Your task to perform on an android device: visit the assistant section in the google photos Image 0: 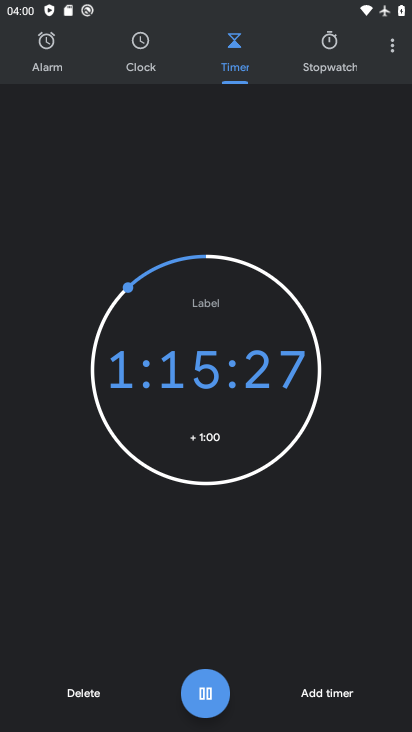
Step 0: press back button
Your task to perform on an android device: visit the assistant section in the google photos Image 1: 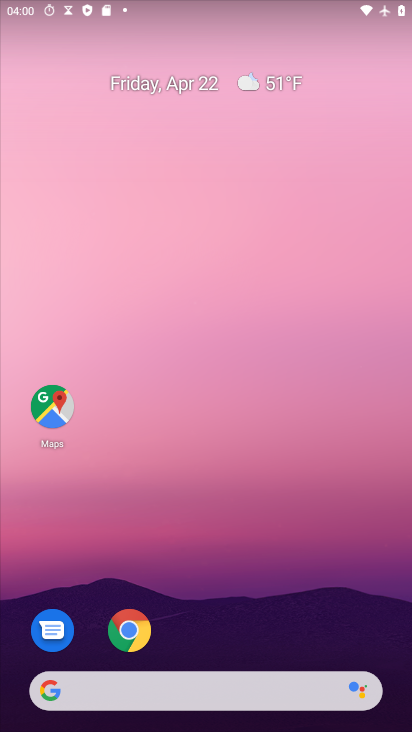
Step 1: drag from (246, 587) to (182, 65)
Your task to perform on an android device: visit the assistant section in the google photos Image 2: 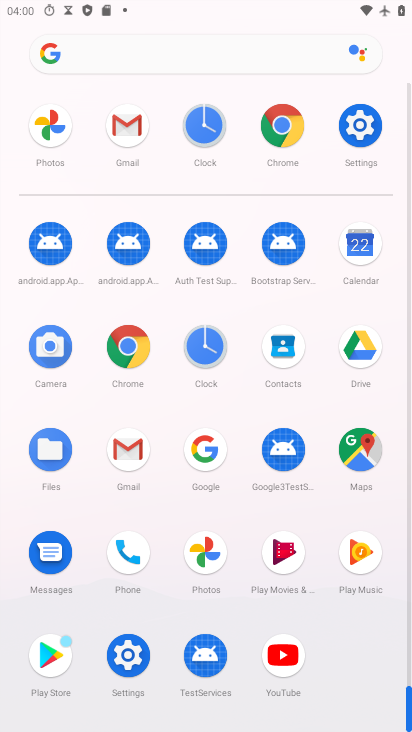
Step 2: drag from (8, 526) to (0, 284)
Your task to perform on an android device: visit the assistant section in the google photos Image 3: 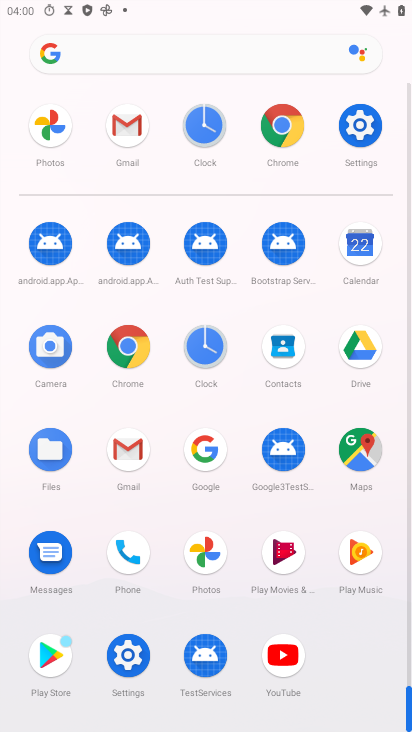
Step 3: click (201, 549)
Your task to perform on an android device: visit the assistant section in the google photos Image 4: 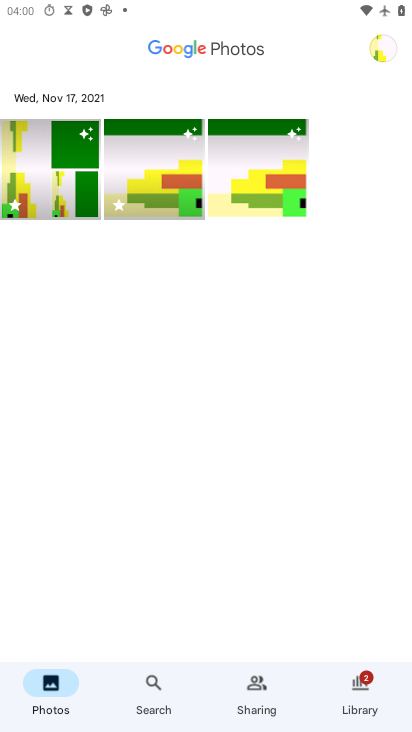
Step 4: click (359, 684)
Your task to perform on an android device: visit the assistant section in the google photos Image 5: 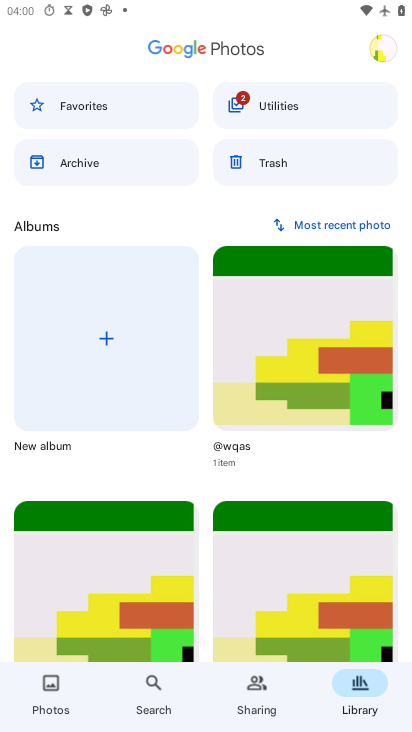
Step 5: click (262, 703)
Your task to perform on an android device: visit the assistant section in the google photos Image 6: 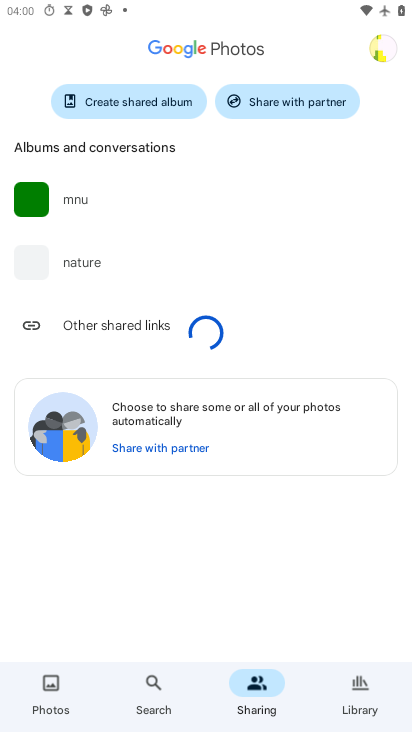
Step 6: click (133, 692)
Your task to perform on an android device: visit the assistant section in the google photos Image 7: 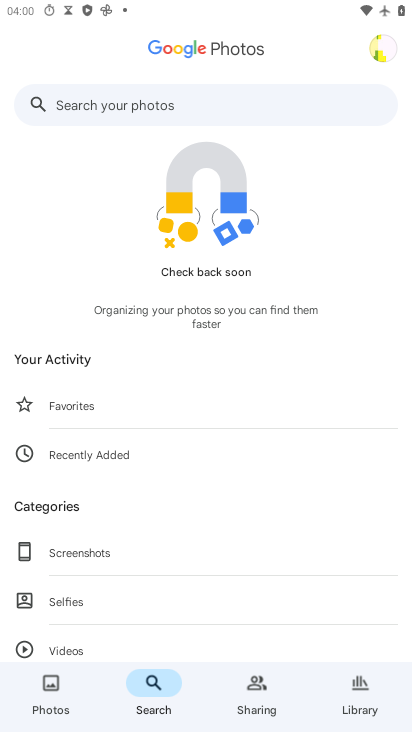
Step 7: drag from (253, 502) to (295, 199)
Your task to perform on an android device: visit the assistant section in the google photos Image 8: 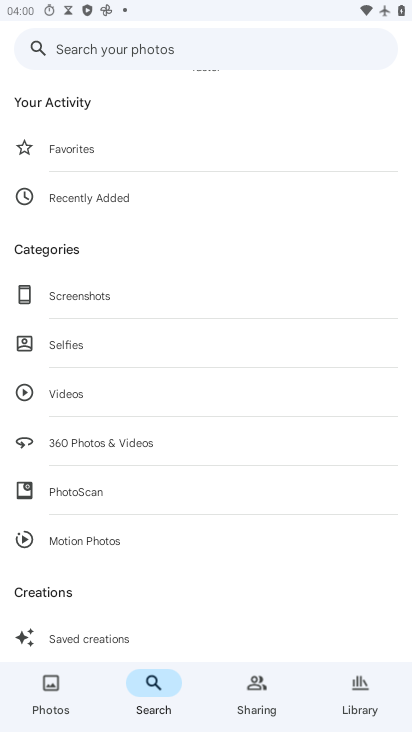
Step 8: drag from (234, 595) to (232, 199)
Your task to perform on an android device: visit the assistant section in the google photos Image 9: 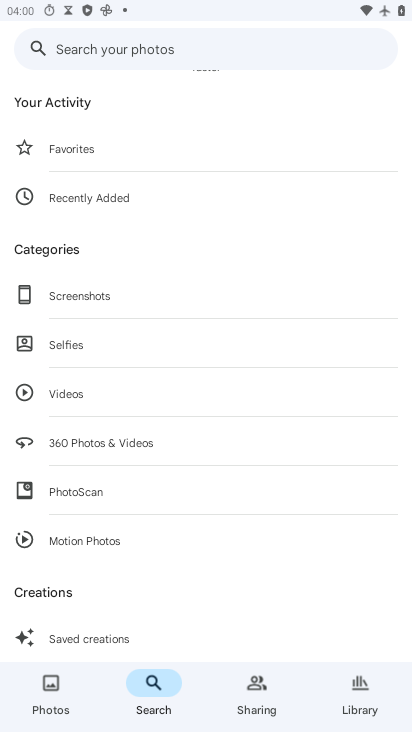
Step 9: drag from (179, 577) to (173, 214)
Your task to perform on an android device: visit the assistant section in the google photos Image 10: 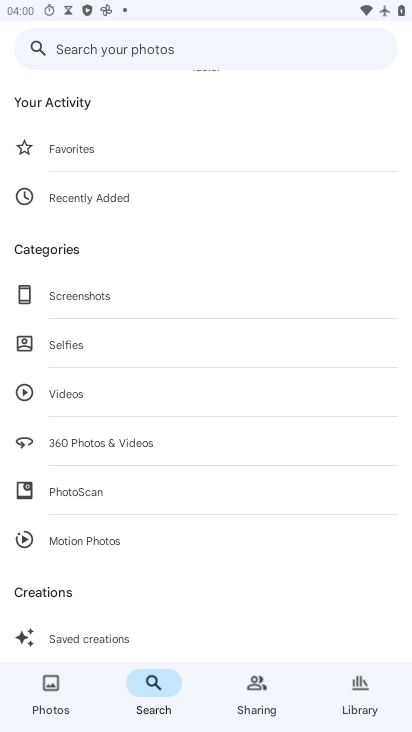
Step 10: click (113, 640)
Your task to perform on an android device: visit the assistant section in the google photos Image 11: 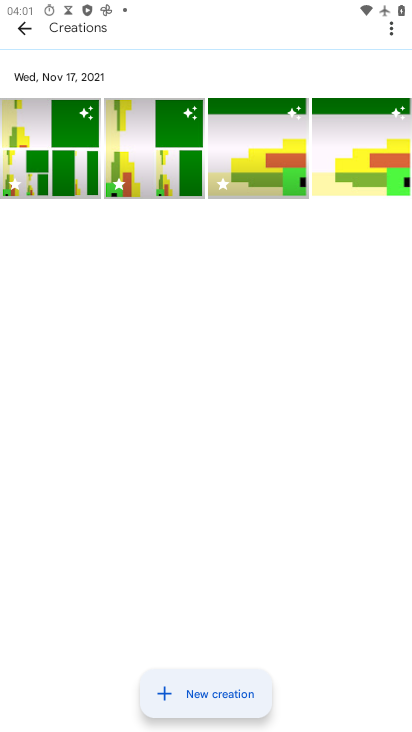
Step 11: click (16, 32)
Your task to perform on an android device: visit the assistant section in the google photos Image 12: 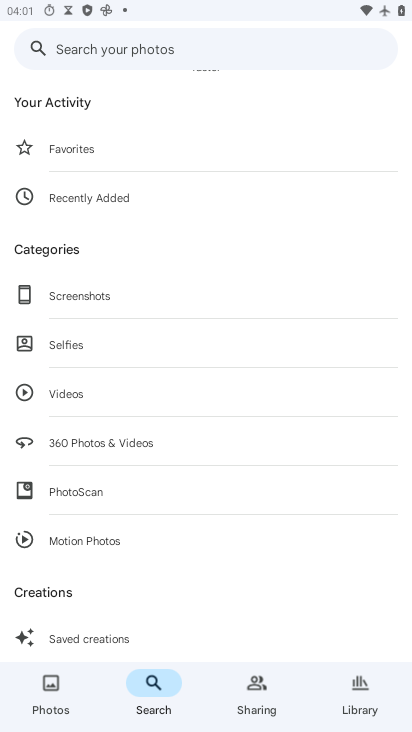
Step 12: click (58, 683)
Your task to perform on an android device: visit the assistant section in the google photos Image 13: 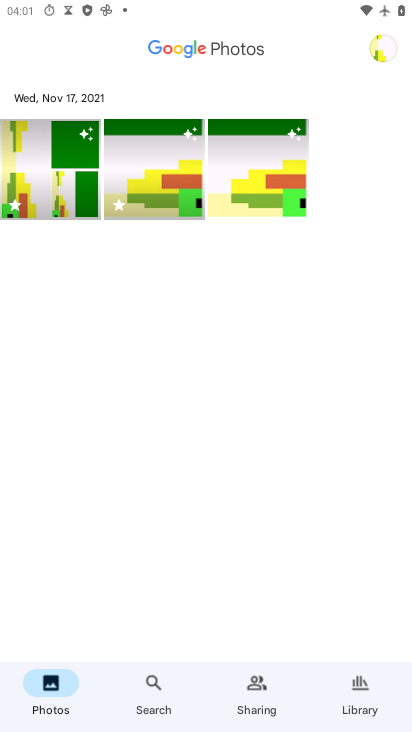
Step 13: drag from (279, 326) to (269, 568)
Your task to perform on an android device: visit the assistant section in the google photos Image 14: 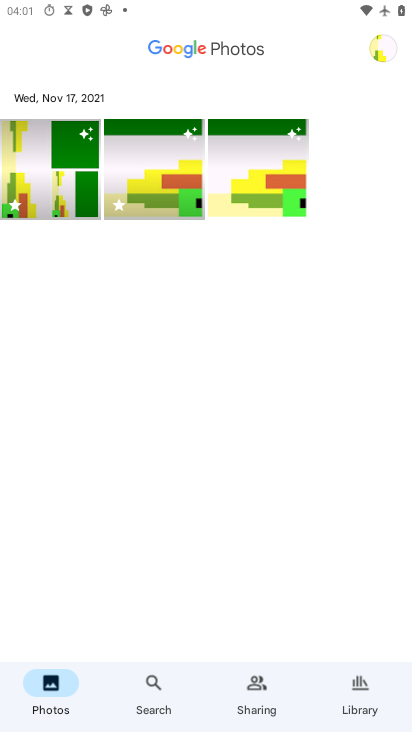
Step 14: click (331, 166)
Your task to perform on an android device: visit the assistant section in the google photos Image 15: 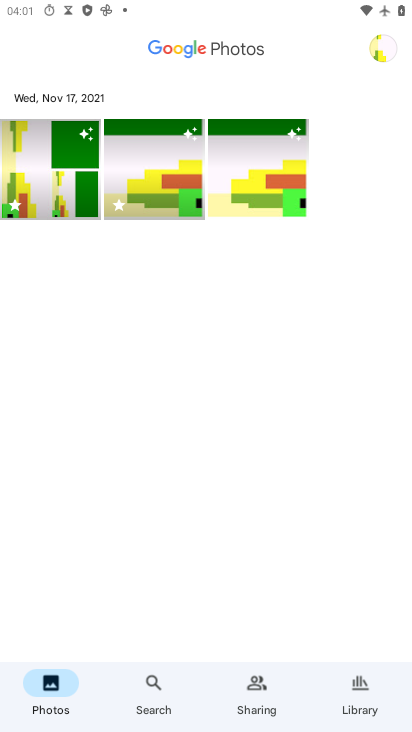
Step 15: task complete